Your task to perform on an android device: turn off location history Image 0: 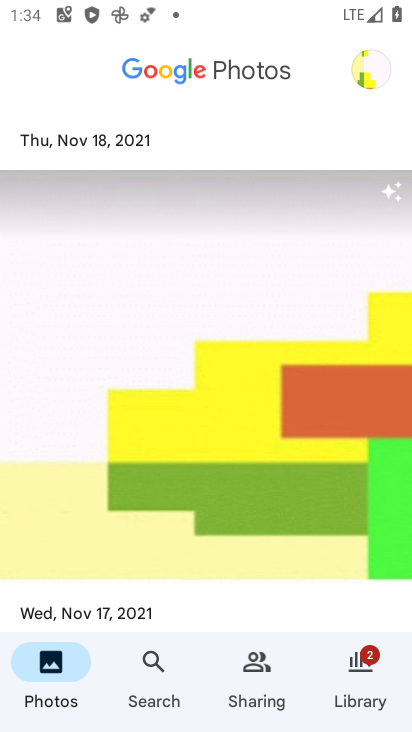
Step 0: press home button
Your task to perform on an android device: turn off location history Image 1: 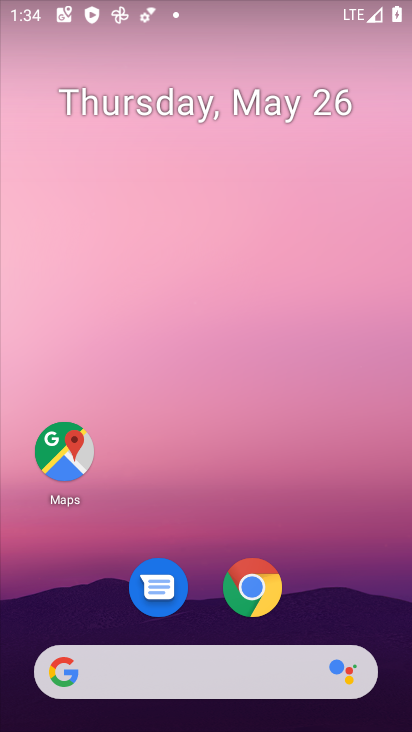
Step 1: drag from (345, 606) to (356, 168)
Your task to perform on an android device: turn off location history Image 2: 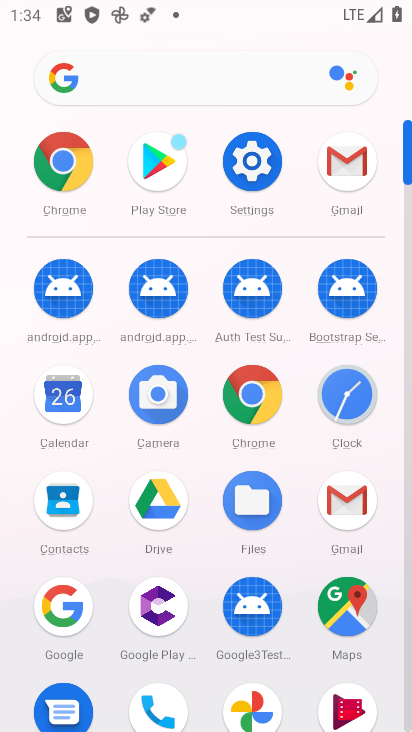
Step 2: click (256, 174)
Your task to perform on an android device: turn off location history Image 3: 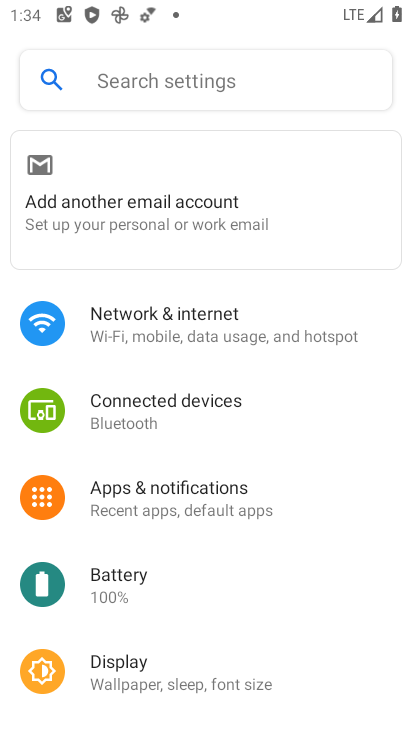
Step 3: drag from (338, 504) to (327, 265)
Your task to perform on an android device: turn off location history Image 4: 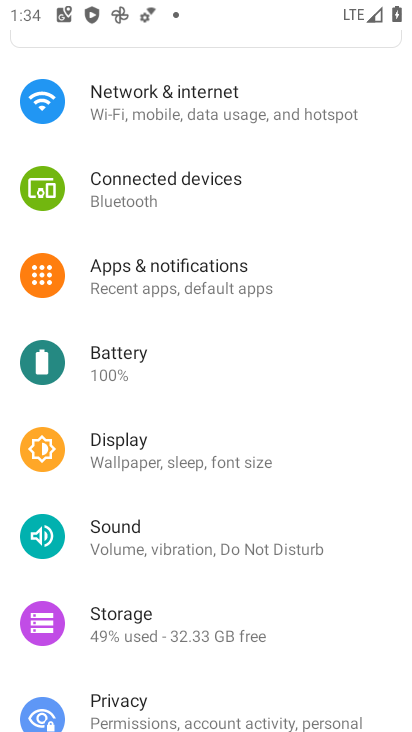
Step 4: drag from (337, 434) to (338, 302)
Your task to perform on an android device: turn off location history Image 5: 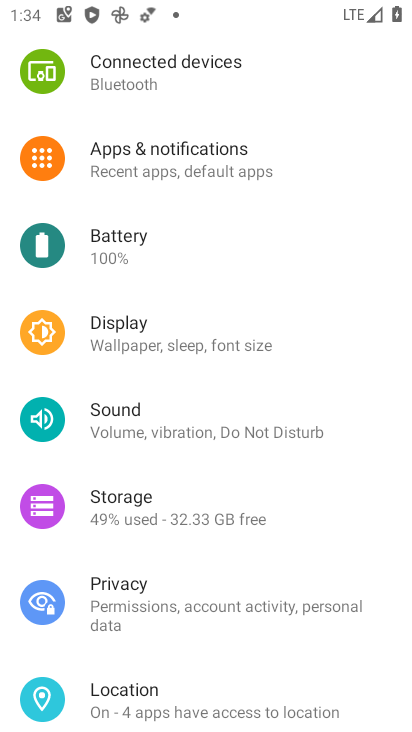
Step 5: drag from (357, 557) to (345, 392)
Your task to perform on an android device: turn off location history Image 6: 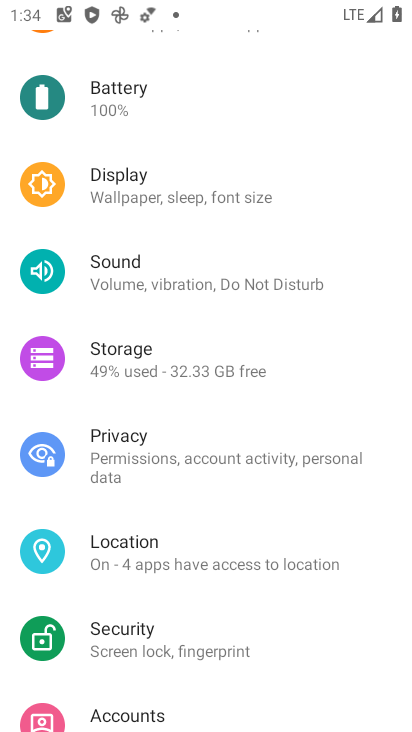
Step 6: drag from (350, 578) to (355, 449)
Your task to perform on an android device: turn off location history Image 7: 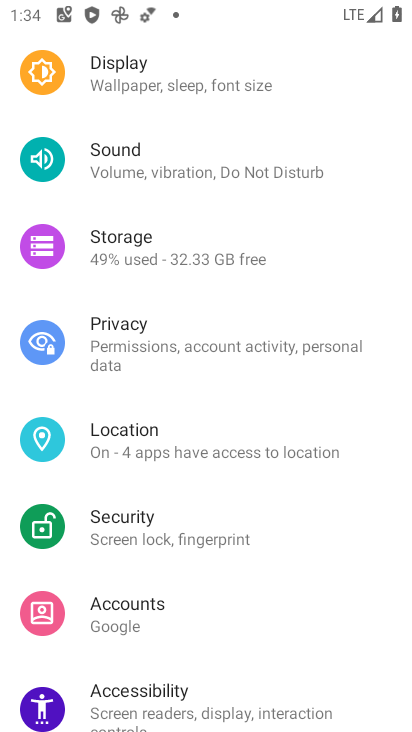
Step 7: drag from (348, 591) to (355, 448)
Your task to perform on an android device: turn off location history Image 8: 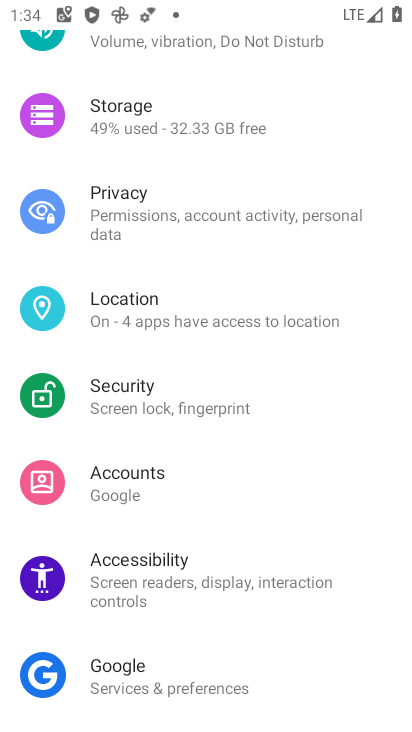
Step 8: drag from (352, 623) to (358, 477)
Your task to perform on an android device: turn off location history Image 9: 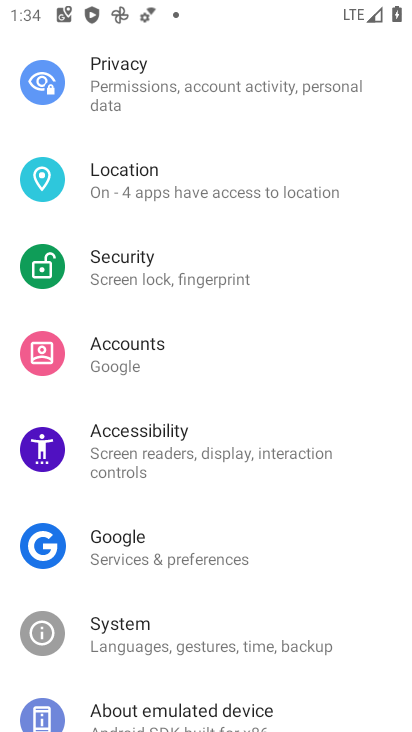
Step 9: drag from (367, 423) to (372, 518)
Your task to perform on an android device: turn off location history Image 10: 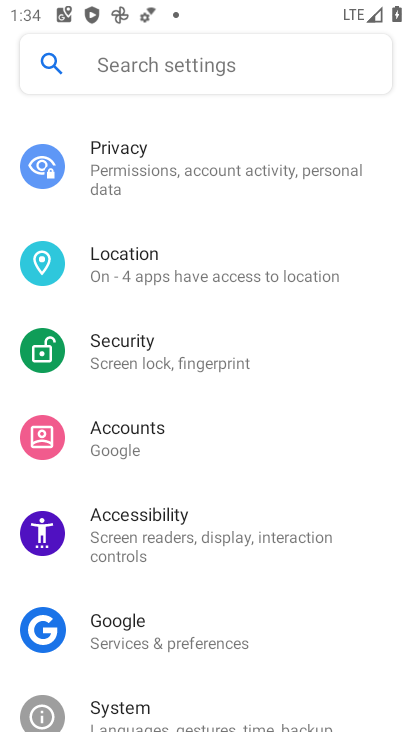
Step 10: drag from (362, 379) to (361, 471)
Your task to perform on an android device: turn off location history Image 11: 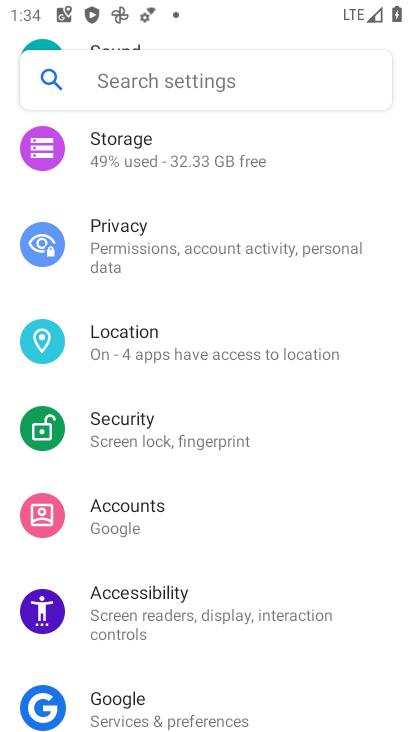
Step 11: drag from (367, 344) to (363, 465)
Your task to perform on an android device: turn off location history Image 12: 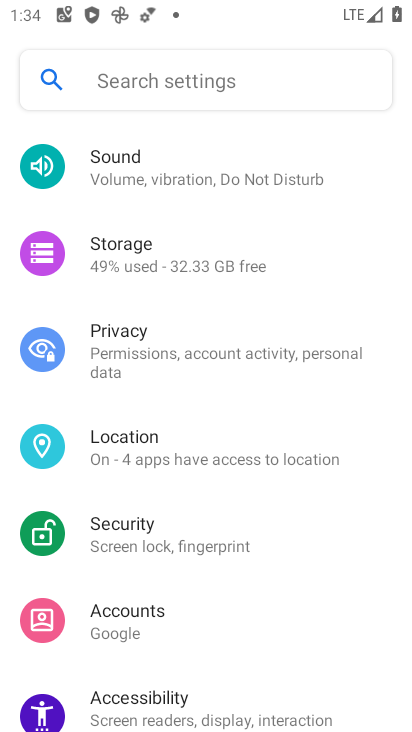
Step 12: click (312, 447)
Your task to perform on an android device: turn off location history Image 13: 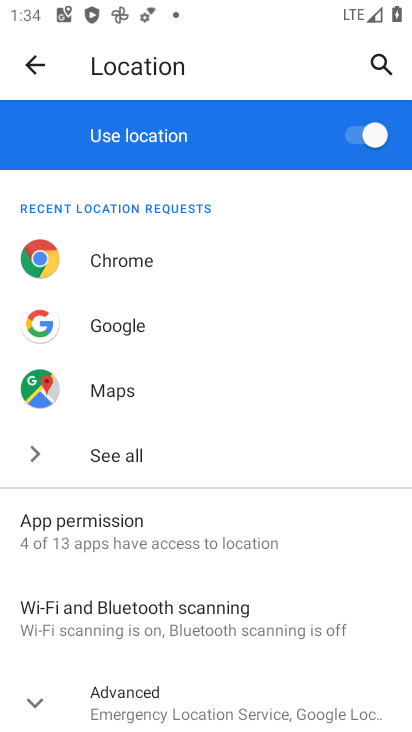
Step 13: click (238, 693)
Your task to perform on an android device: turn off location history Image 14: 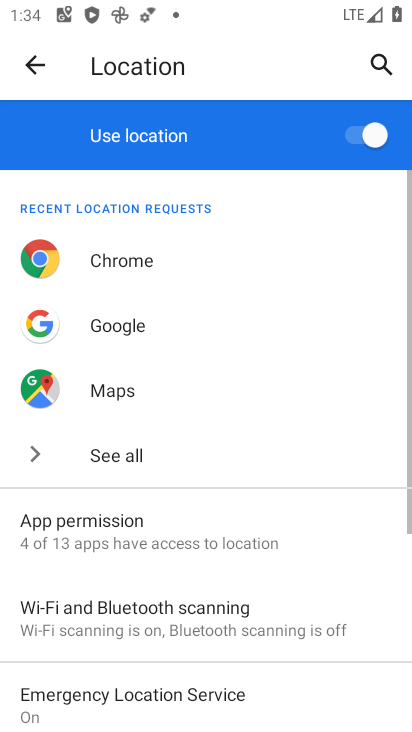
Step 14: task complete